Your task to perform on an android device: clear history in the chrome app Image 0: 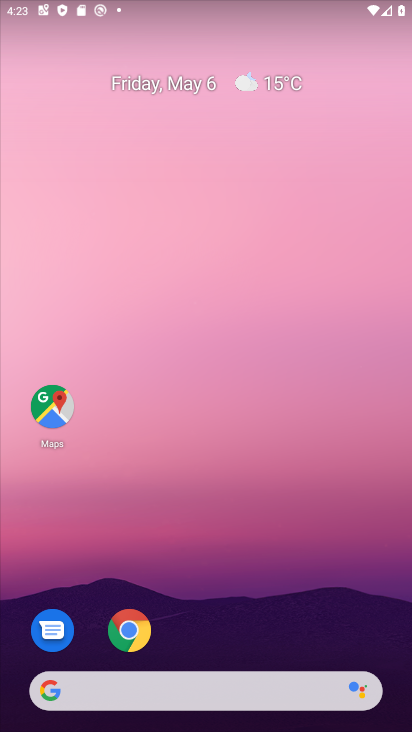
Step 0: click (135, 626)
Your task to perform on an android device: clear history in the chrome app Image 1: 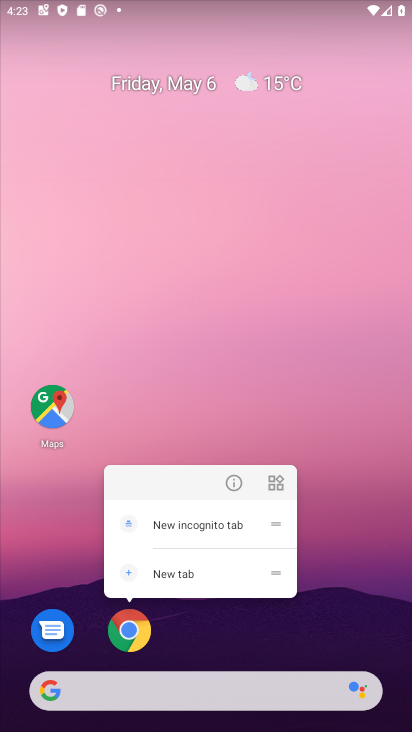
Step 1: click (141, 620)
Your task to perform on an android device: clear history in the chrome app Image 2: 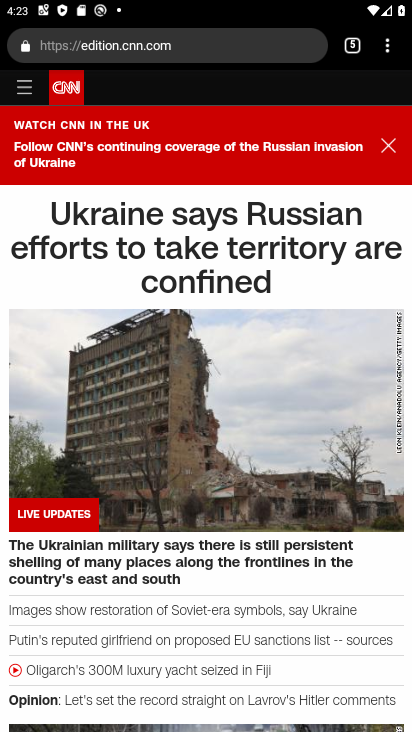
Step 2: drag from (386, 43) to (262, 249)
Your task to perform on an android device: clear history in the chrome app Image 3: 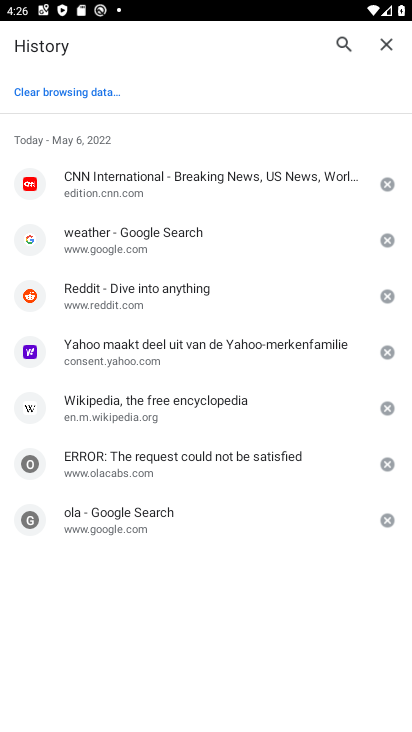
Step 3: click (73, 91)
Your task to perform on an android device: clear history in the chrome app Image 4: 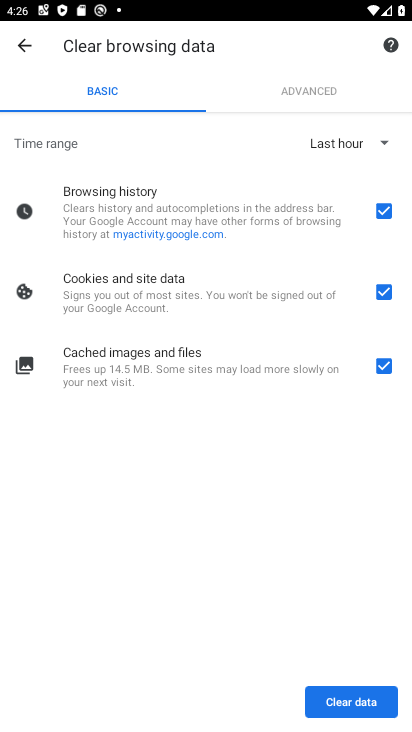
Step 4: click (348, 707)
Your task to perform on an android device: clear history in the chrome app Image 5: 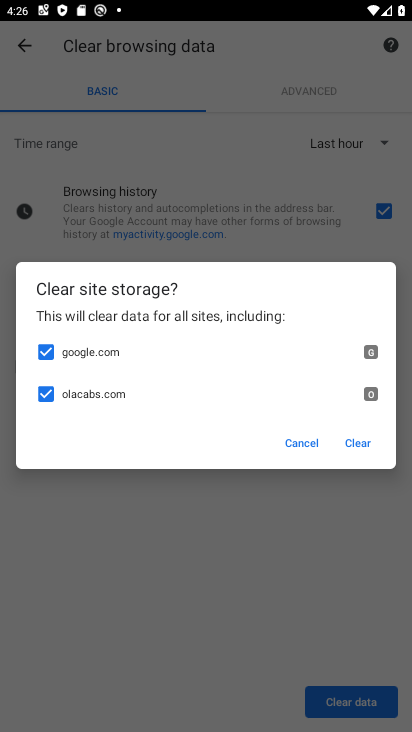
Step 5: click (371, 443)
Your task to perform on an android device: clear history in the chrome app Image 6: 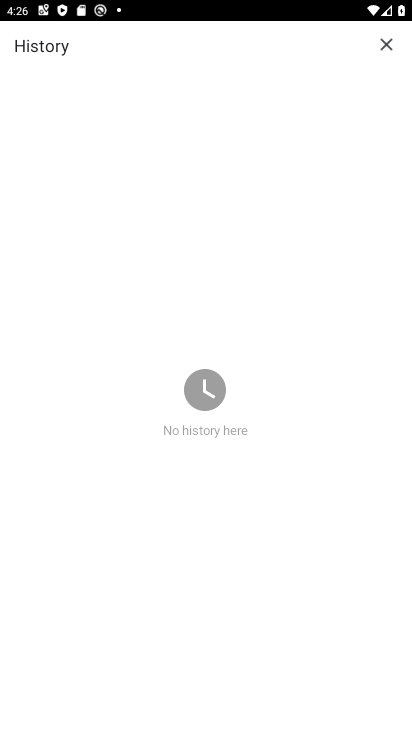
Step 6: task complete